Your task to perform on an android device: Go to location settings Image 0: 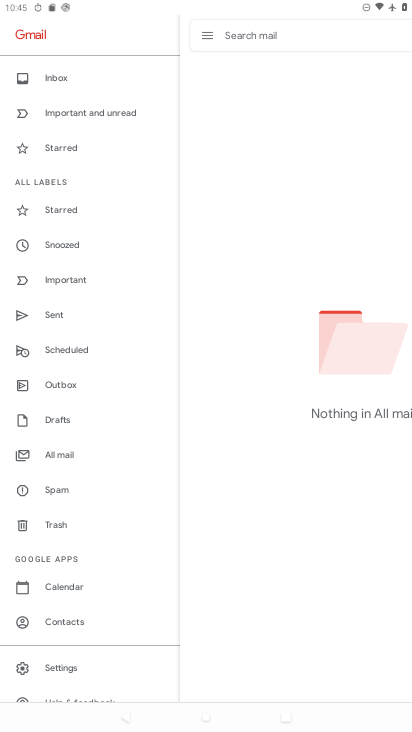
Step 0: press home button
Your task to perform on an android device: Go to location settings Image 1: 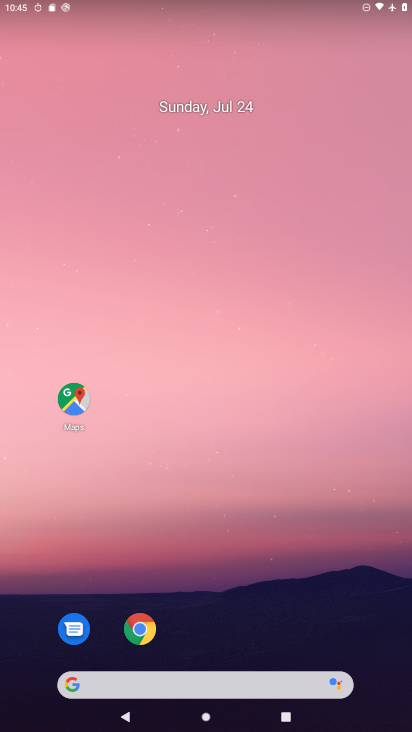
Step 1: drag from (187, 571) to (408, 105)
Your task to perform on an android device: Go to location settings Image 2: 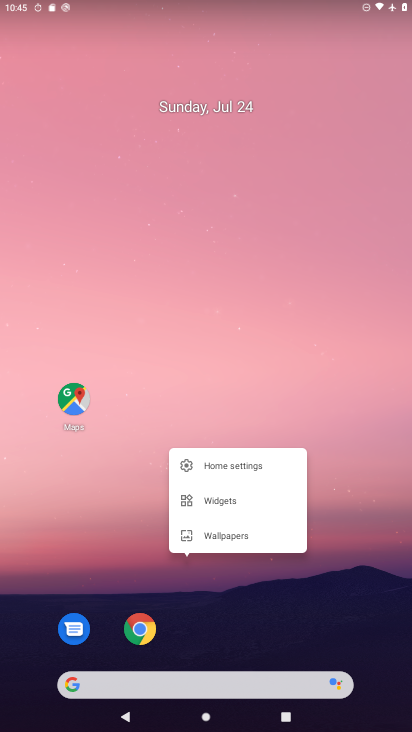
Step 2: click (299, 271)
Your task to perform on an android device: Go to location settings Image 3: 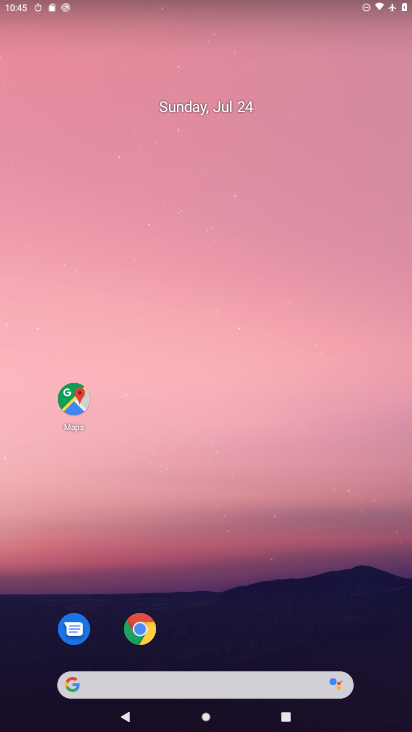
Step 3: drag from (229, 625) to (250, 168)
Your task to perform on an android device: Go to location settings Image 4: 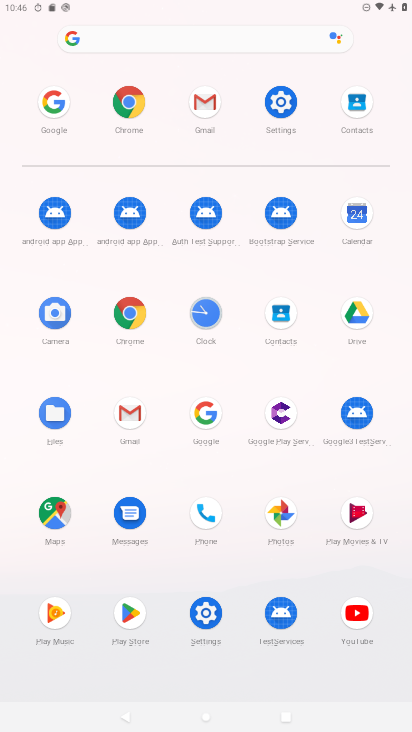
Step 4: click (286, 102)
Your task to perform on an android device: Go to location settings Image 5: 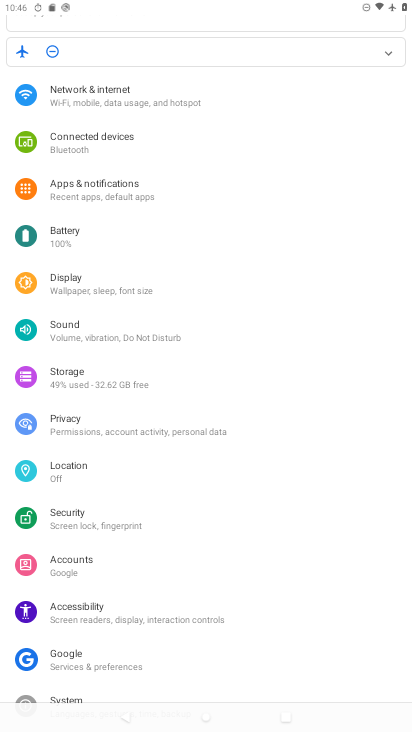
Step 5: click (77, 470)
Your task to perform on an android device: Go to location settings Image 6: 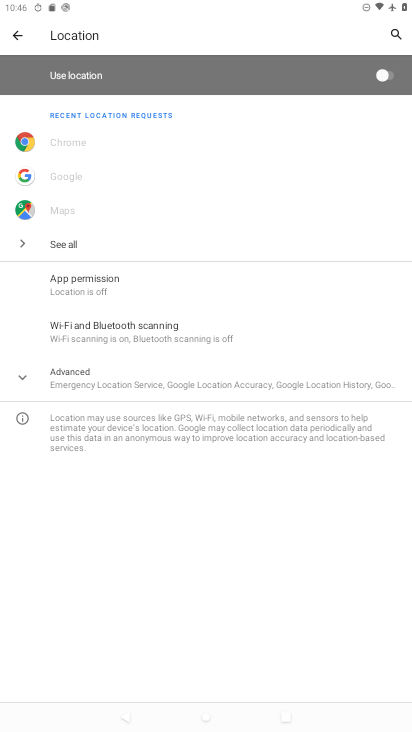
Step 6: task complete